Your task to perform on an android device: find which apps use the phone's location Image 0: 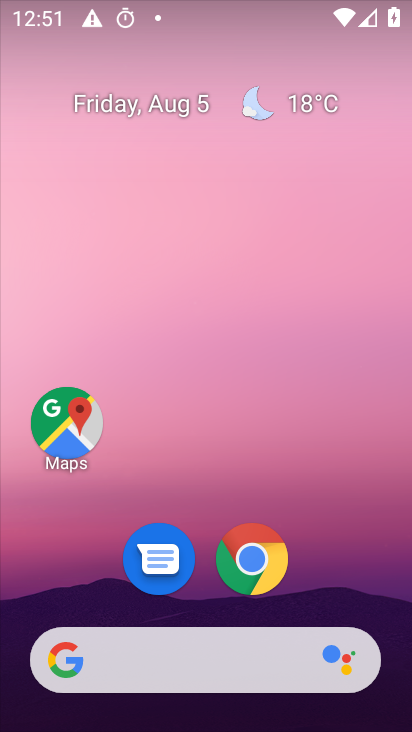
Step 0: drag from (29, 694) to (142, 443)
Your task to perform on an android device: find which apps use the phone's location Image 1: 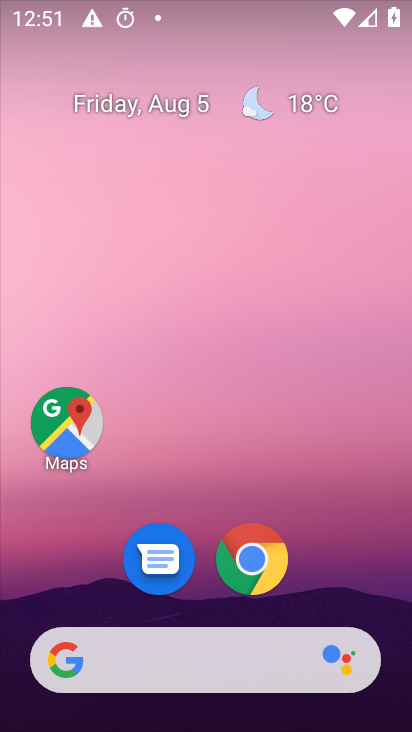
Step 1: drag from (19, 704) to (168, 150)
Your task to perform on an android device: find which apps use the phone's location Image 2: 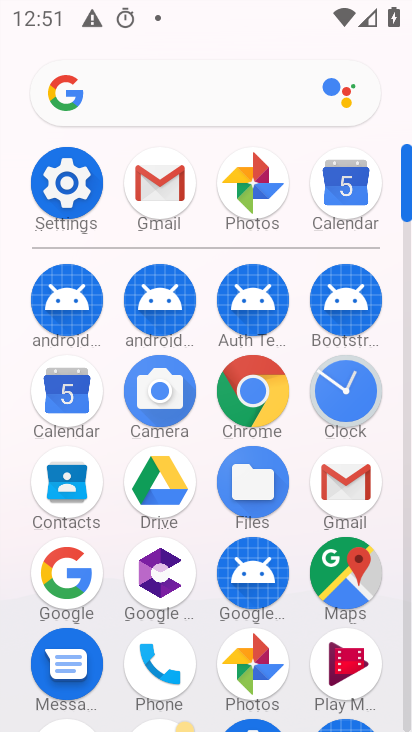
Step 2: click (69, 193)
Your task to perform on an android device: find which apps use the phone's location Image 3: 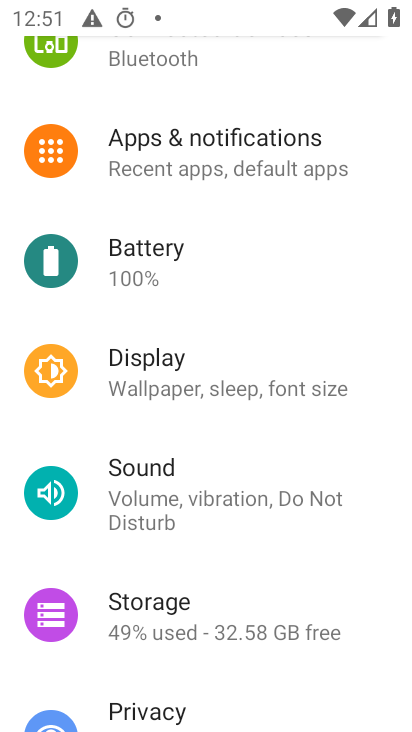
Step 3: click (257, 138)
Your task to perform on an android device: find which apps use the phone's location Image 4: 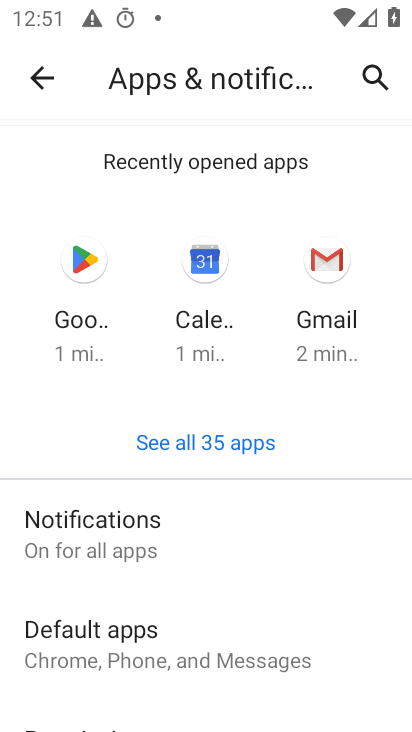
Step 4: click (388, 614)
Your task to perform on an android device: find which apps use the phone's location Image 5: 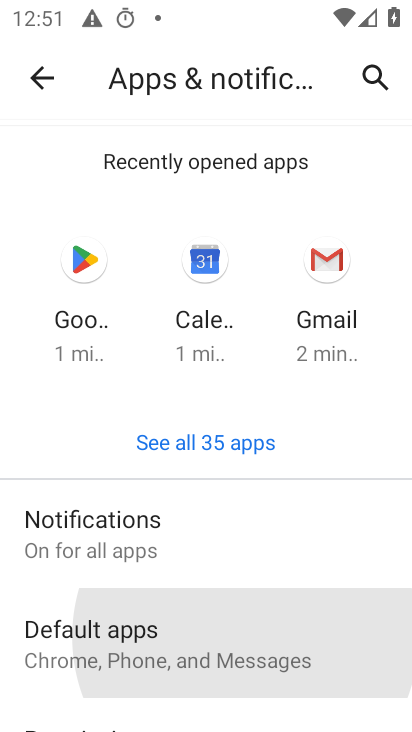
Step 5: drag from (388, 614) to (343, 45)
Your task to perform on an android device: find which apps use the phone's location Image 6: 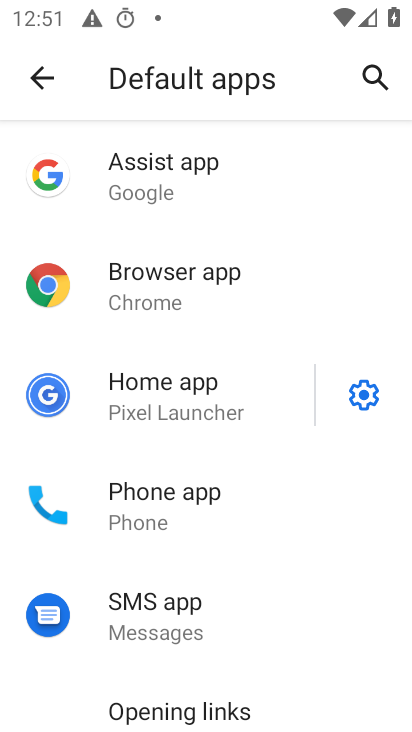
Step 6: click (41, 69)
Your task to perform on an android device: find which apps use the phone's location Image 7: 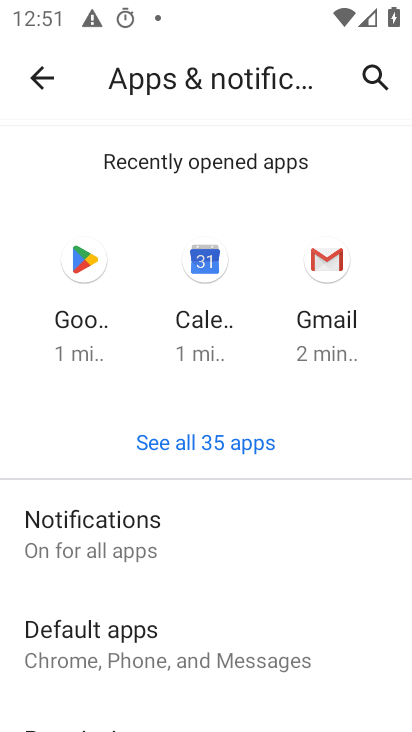
Step 7: drag from (384, 653) to (363, 306)
Your task to perform on an android device: find which apps use the phone's location Image 8: 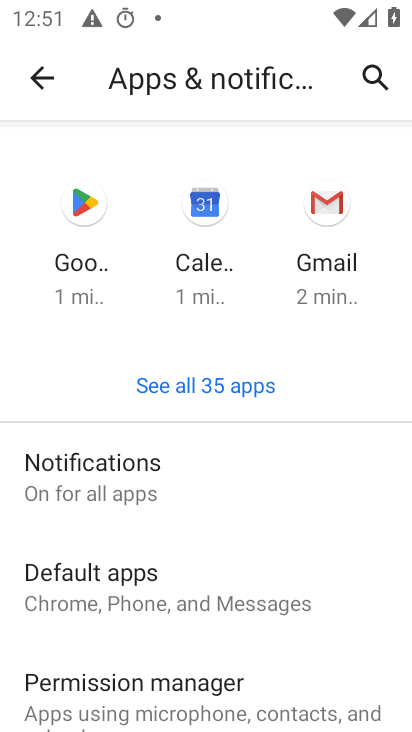
Step 8: click (194, 679)
Your task to perform on an android device: find which apps use the phone's location Image 9: 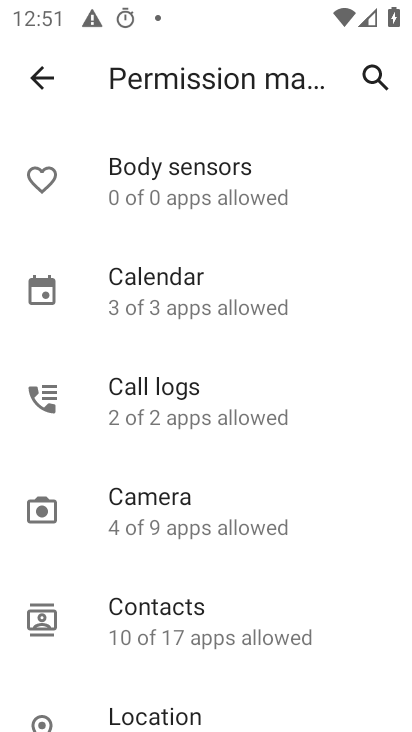
Step 9: task complete